Your task to perform on an android device: Search for Italian restaurants on Maps Image 0: 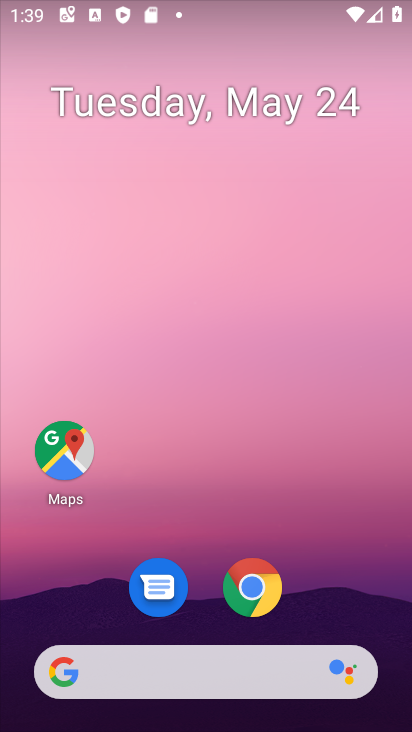
Step 0: click (69, 454)
Your task to perform on an android device: Search for Italian restaurants on Maps Image 1: 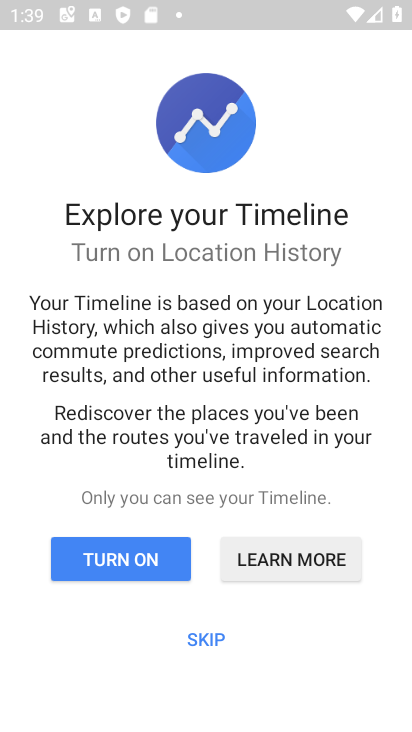
Step 1: click (212, 629)
Your task to perform on an android device: Search for Italian restaurants on Maps Image 2: 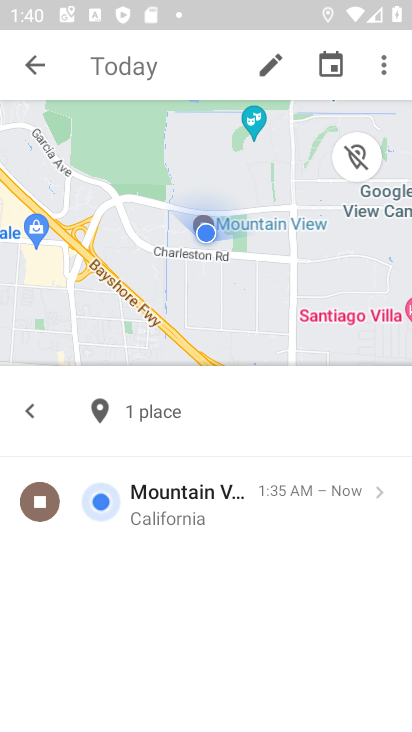
Step 2: click (52, 59)
Your task to perform on an android device: Search for Italian restaurants on Maps Image 3: 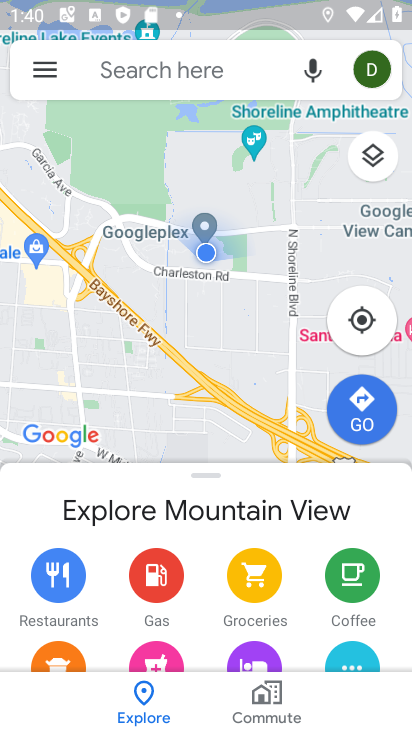
Step 3: click (148, 74)
Your task to perform on an android device: Search for Italian restaurants on Maps Image 4: 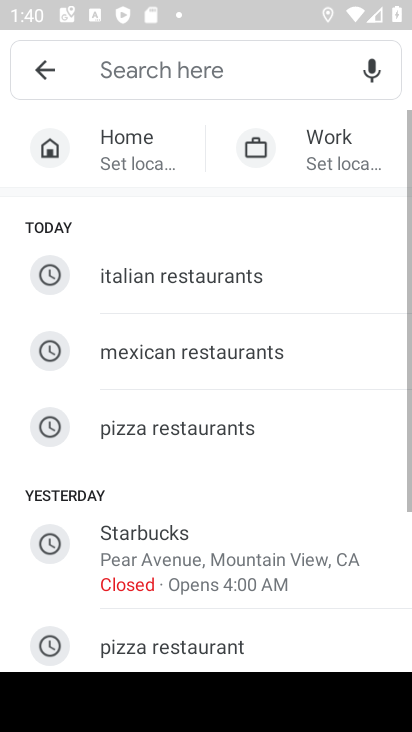
Step 4: click (212, 274)
Your task to perform on an android device: Search for Italian restaurants on Maps Image 5: 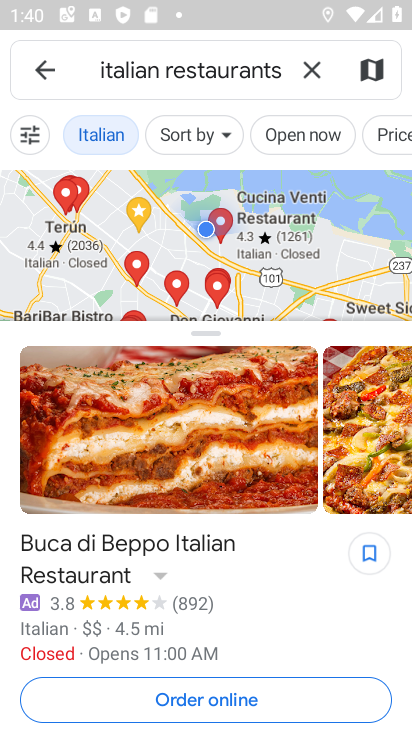
Step 5: task complete